Your task to perform on an android device: Show me productivity apps on the Play Store Image 0: 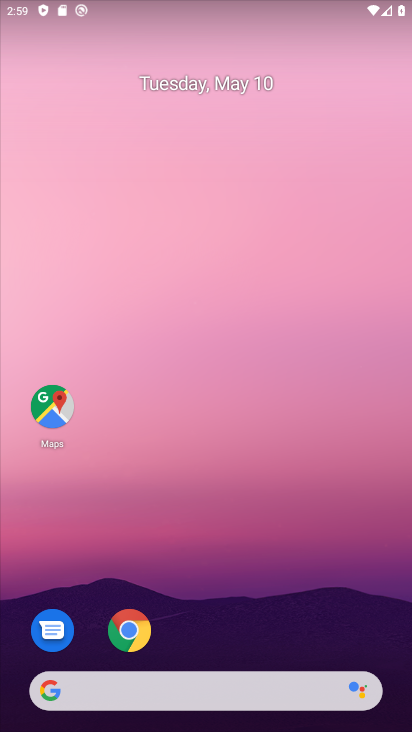
Step 0: drag from (221, 653) to (300, 69)
Your task to perform on an android device: Show me productivity apps on the Play Store Image 1: 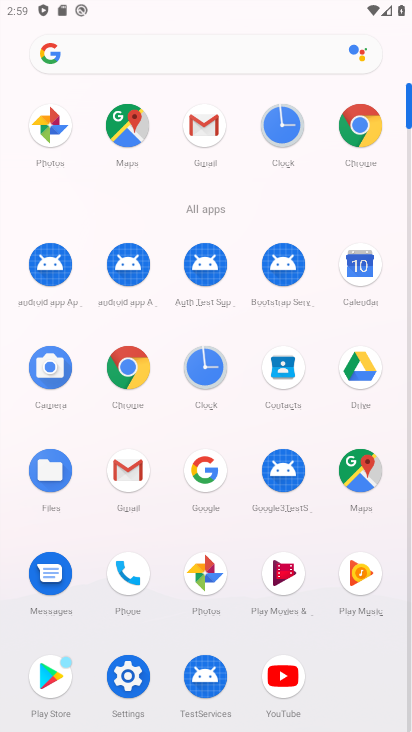
Step 1: click (44, 684)
Your task to perform on an android device: Show me productivity apps on the Play Store Image 2: 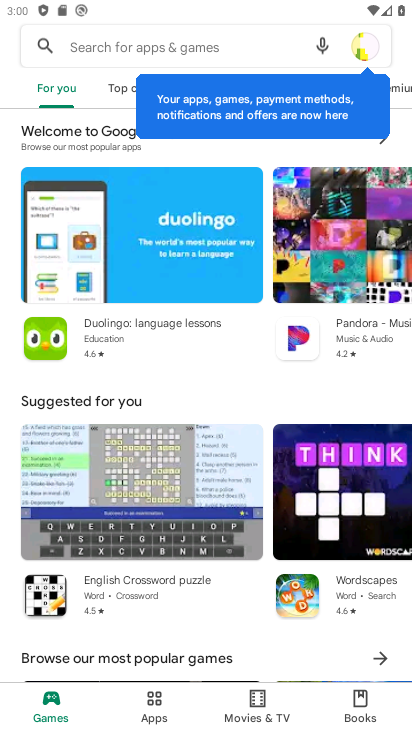
Step 2: click (397, 93)
Your task to perform on an android device: Show me productivity apps on the Play Store Image 3: 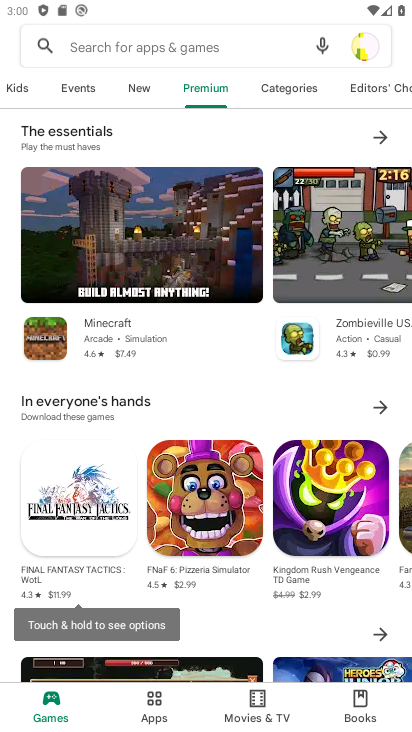
Step 3: click (306, 89)
Your task to perform on an android device: Show me productivity apps on the Play Store Image 4: 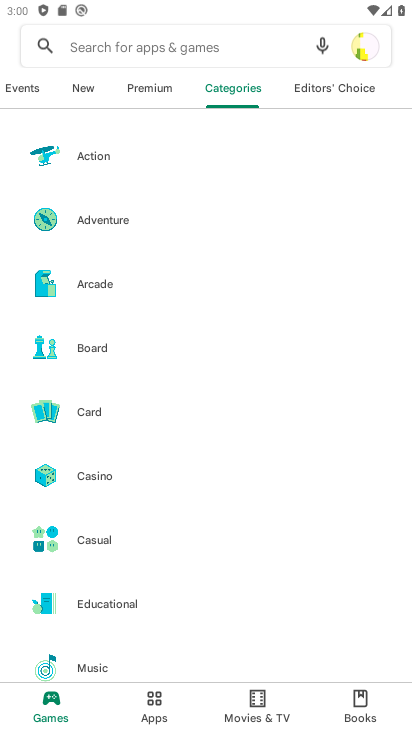
Step 4: drag from (158, 617) to (216, 116)
Your task to perform on an android device: Show me productivity apps on the Play Store Image 5: 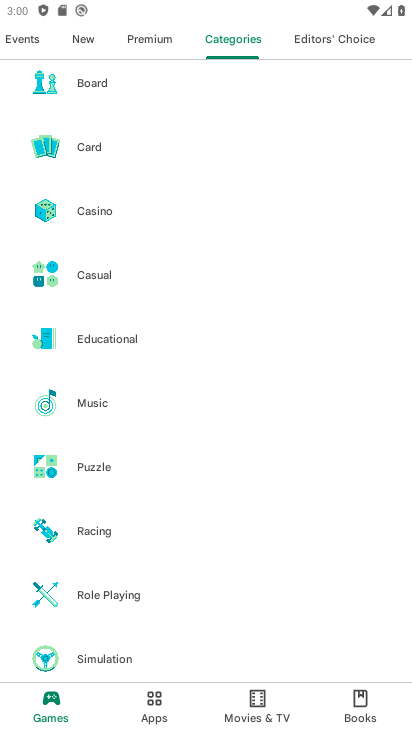
Step 5: drag from (115, 669) to (145, 51)
Your task to perform on an android device: Show me productivity apps on the Play Store Image 6: 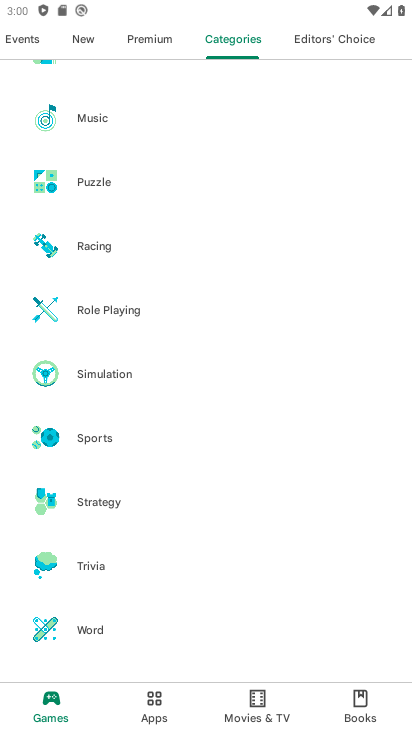
Step 6: drag from (140, 661) to (177, 275)
Your task to perform on an android device: Show me productivity apps on the Play Store Image 7: 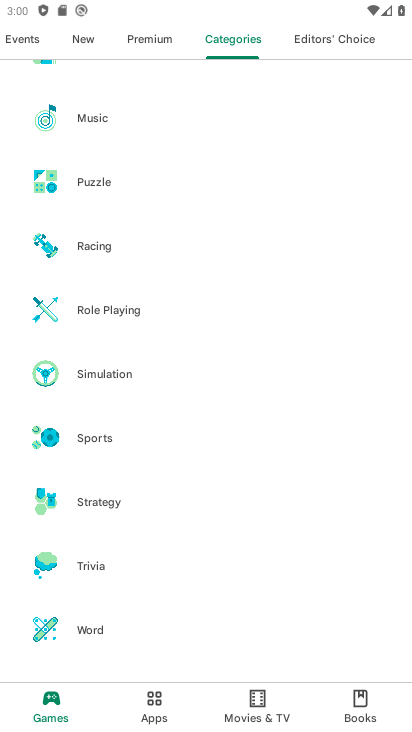
Step 7: drag from (206, 159) to (216, 595)
Your task to perform on an android device: Show me productivity apps on the Play Store Image 8: 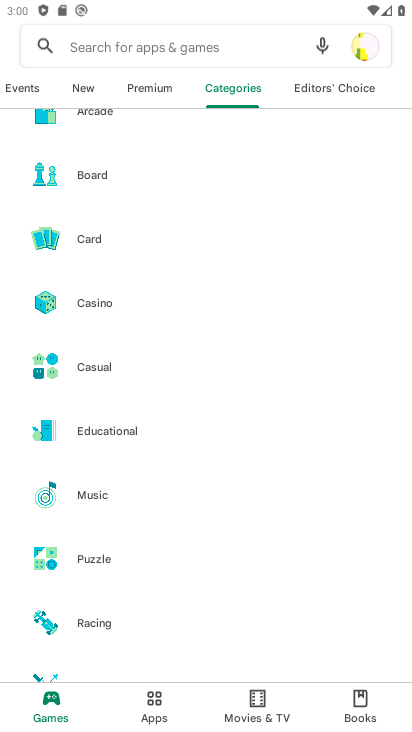
Step 8: drag from (130, 270) to (143, 609)
Your task to perform on an android device: Show me productivity apps on the Play Store Image 9: 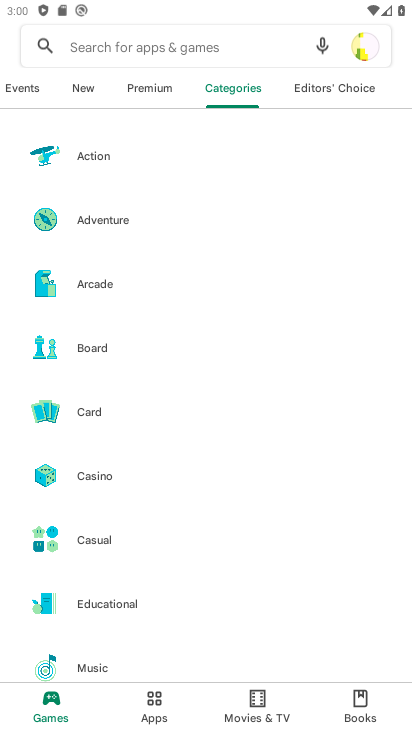
Step 9: drag from (99, 461) to (148, 130)
Your task to perform on an android device: Show me productivity apps on the Play Store Image 10: 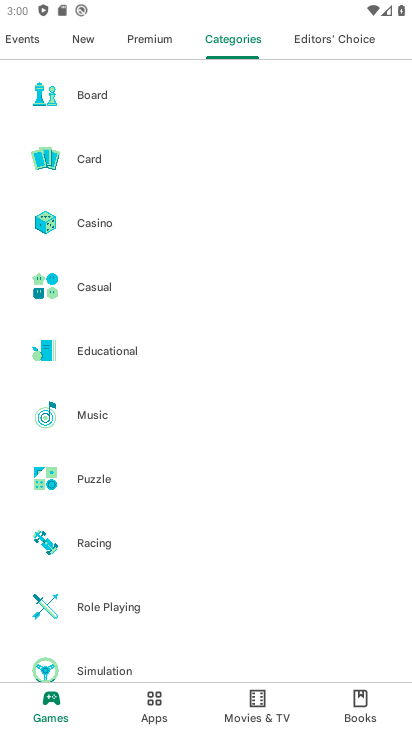
Step 10: drag from (160, 578) to (170, 227)
Your task to perform on an android device: Show me productivity apps on the Play Store Image 11: 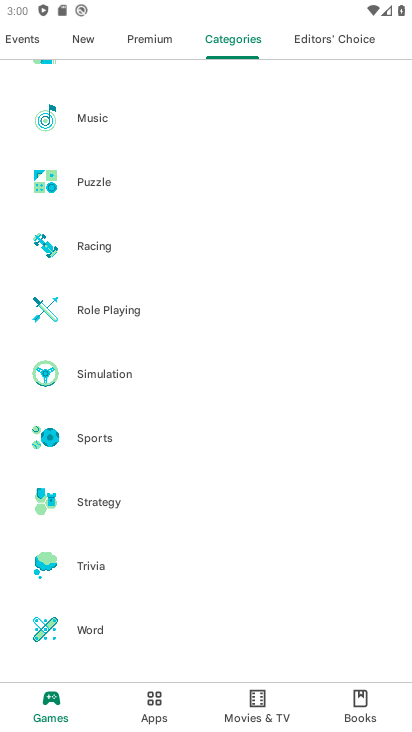
Step 11: drag from (80, 615) to (122, 207)
Your task to perform on an android device: Show me productivity apps on the Play Store Image 12: 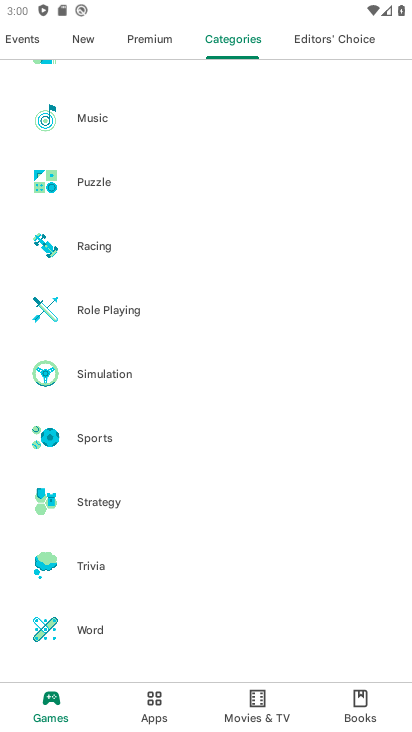
Step 12: drag from (221, 235) to (204, 553)
Your task to perform on an android device: Show me productivity apps on the Play Store Image 13: 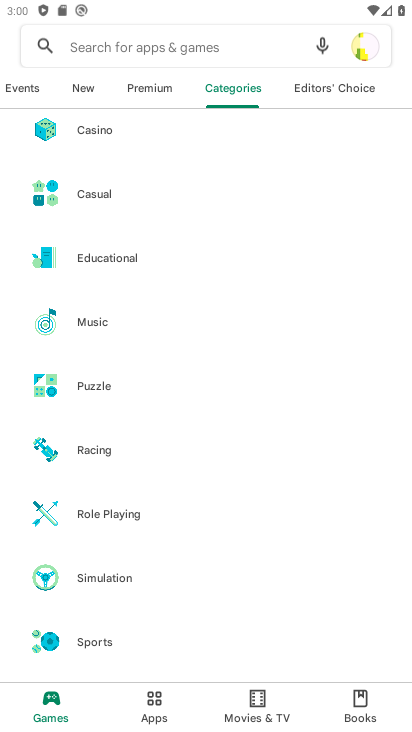
Step 13: drag from (223, 232) to (236, 607)
Your task to perform on an android device: Show me productivity apps on the Play Store Image 14: 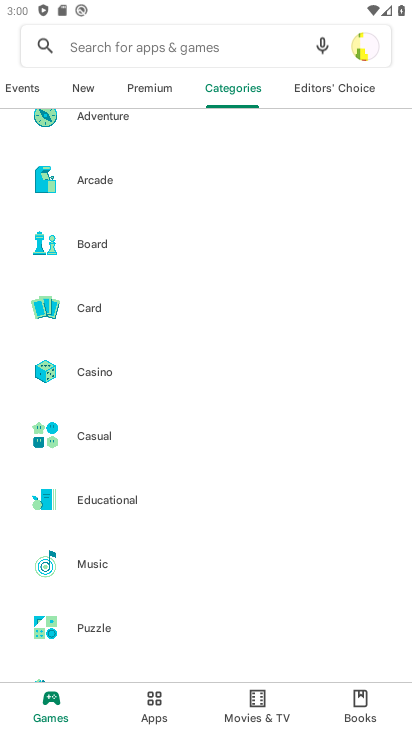
Step 14: drag from (196, 178) to (226, 562)
Your task to perform on an android device: Show me productivity apps on the Play Store Image 15: 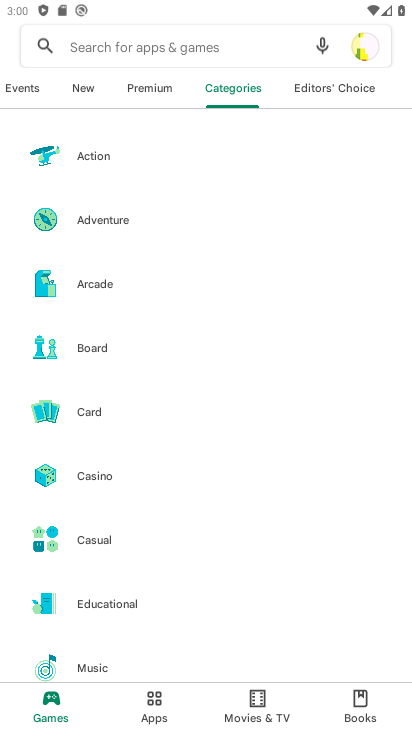
Step 15: click (153, 692)
Your task to perform on an android device: Show me productivity apps on the Play Store Image 16: 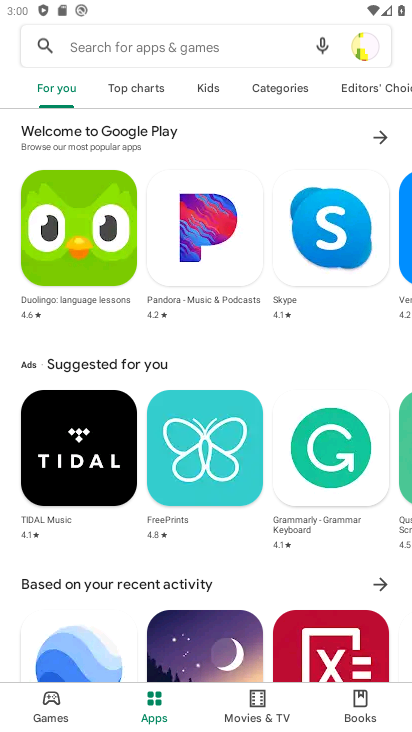
Step 16: click (275, 100)
Your task to perform on an android device: Show me productivity apps on the Play Store Image 17: 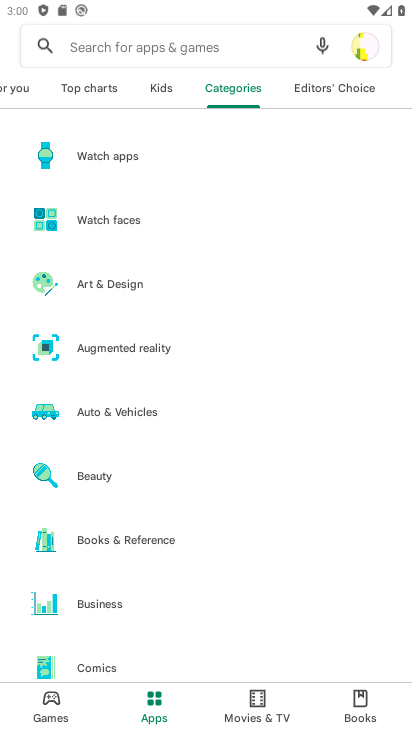
Step 17: drag from (128, 560) to (148, 269)
Your task to perform on an android device: Show me productivity apps on the Play Store Image 18: 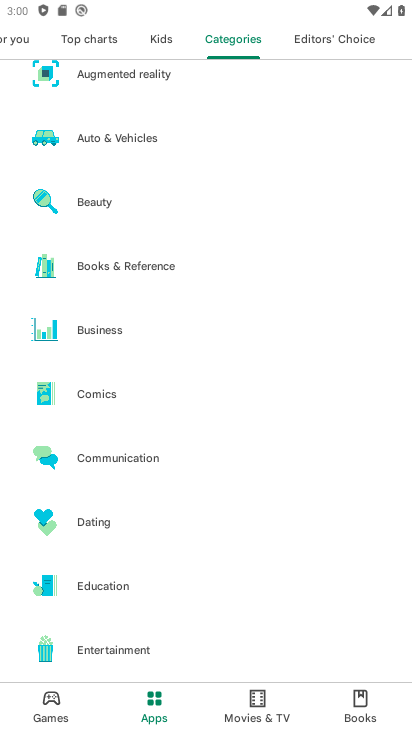
Step 18: drag from (168, 655) to (184, 227)
Your task to perform on an android device: Show me productivity apps on the Play Store Image 19: 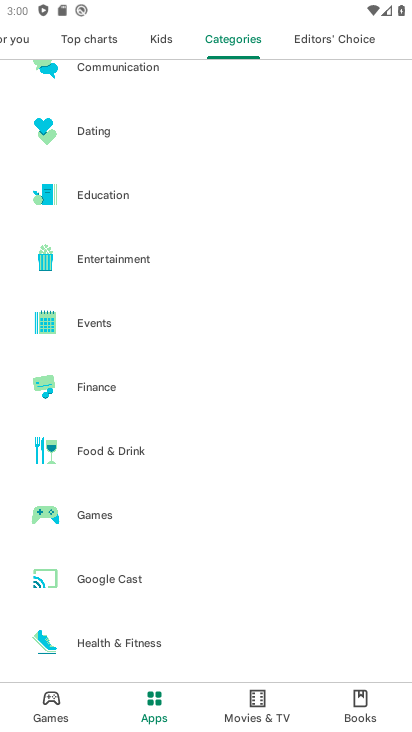
Step 19: drag from (81, 628) to (192, 34)
Your task to perform on an android device: Show me productivity apps on the Play Store Image 20: 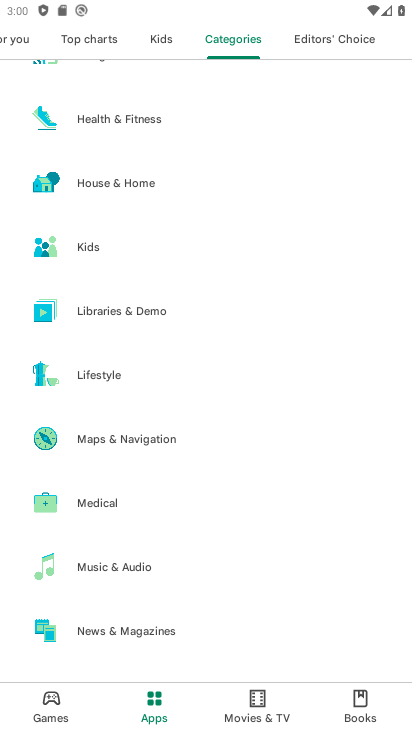
Step 20: drag from (90, 608) to (181, 44)
Your task to perform on an android device: Show me productivity apps on the Play Store Image 21: 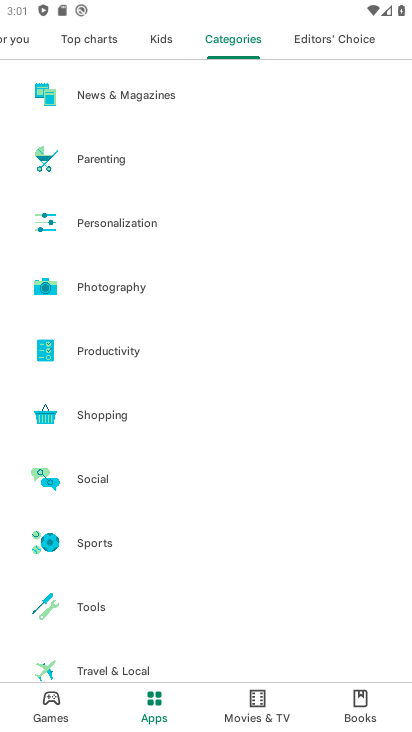
Step 21: click (131, 369)
Your task to perform on an android device: Show me productivity apps on the Play Store Image 22: 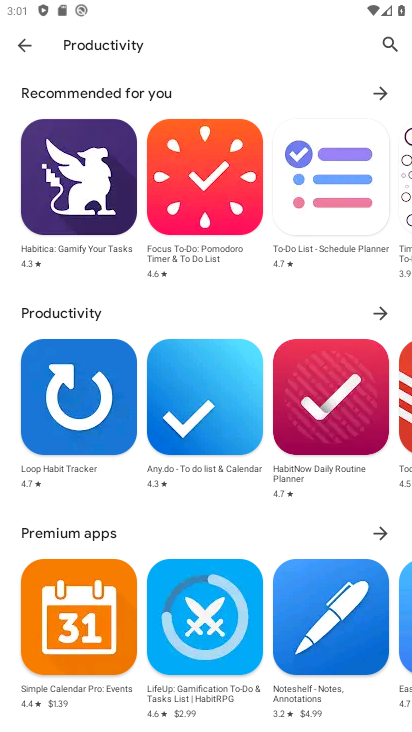
Step 22: task complete